Your task to perform on an android device: Find coffee shops on Maps Image 0: 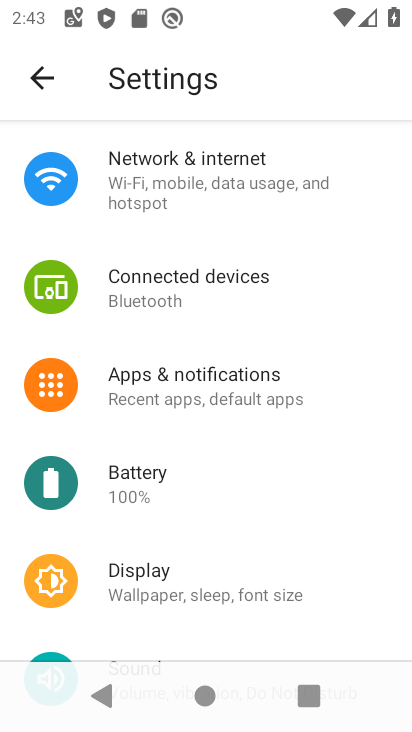
Step 0: press home button
Your task to perform on an android device: Find coffee shops on Maps Image 1: 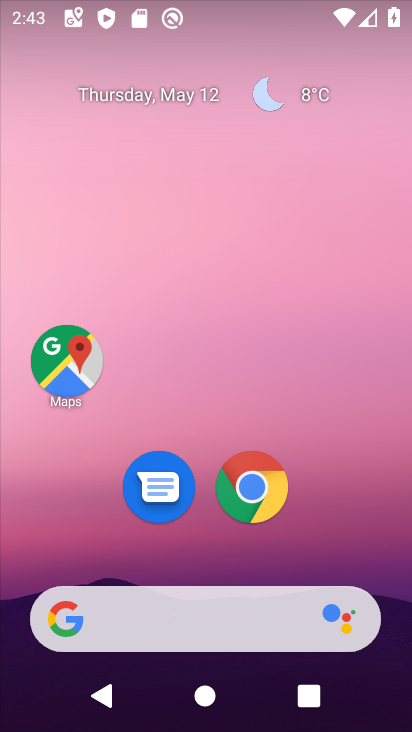
Step 1: drag from (341, 533) to (337, 496)
Your task to perform on an android device: Find coffee shops on Maps Image 2: 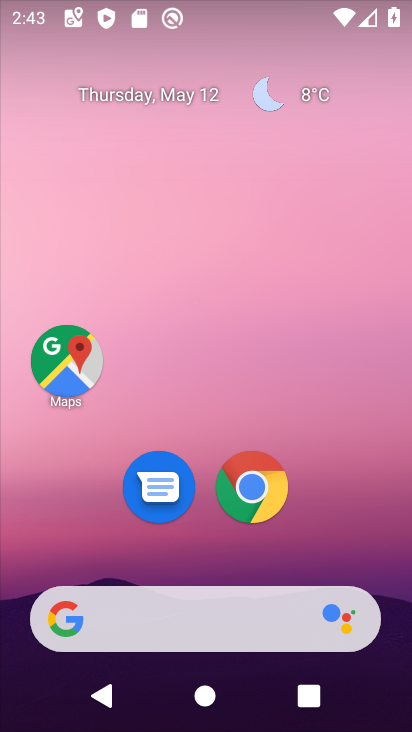
Step 2: drag from (363, 416) to (394, 5)
Your task to perform on an android device: Find coffee shops on Maps Image 3: 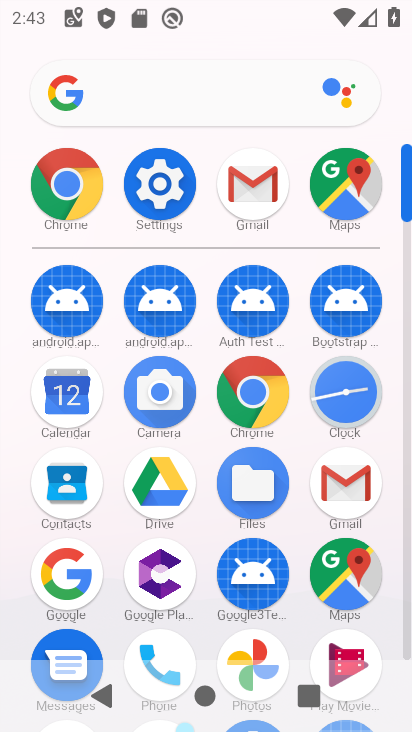
Step 3: click (356, 564)
Your task to perform on an android device: Find coffee shops on Maps Image 4: 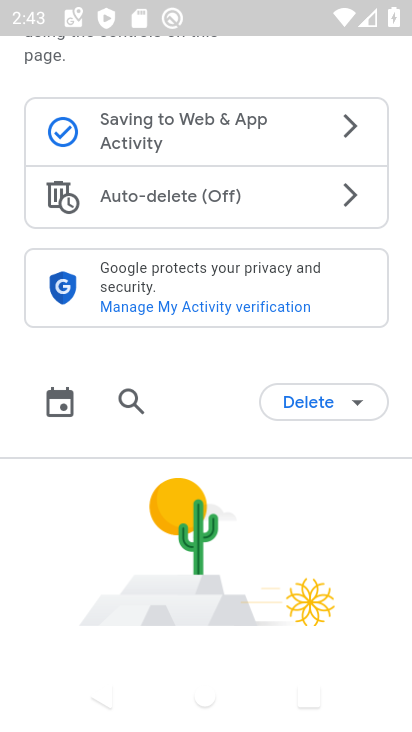
Step 4: press back button
Your task to perform on an android device: Find coffee shops on Maps Image 5: 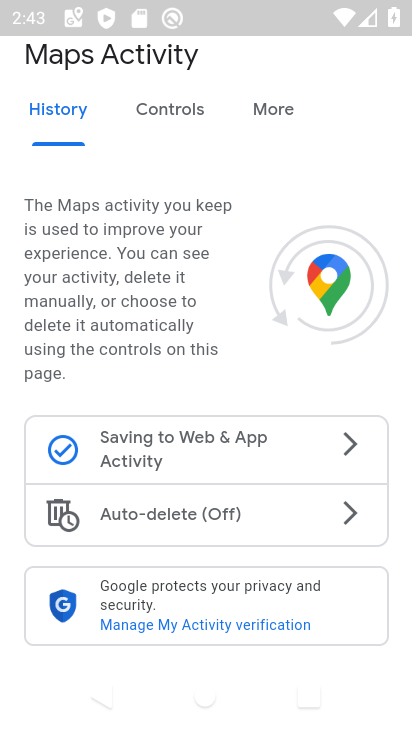
Step 5: press back button
Your task to perform on an android device: Find coffee shops on Maps Image 6: 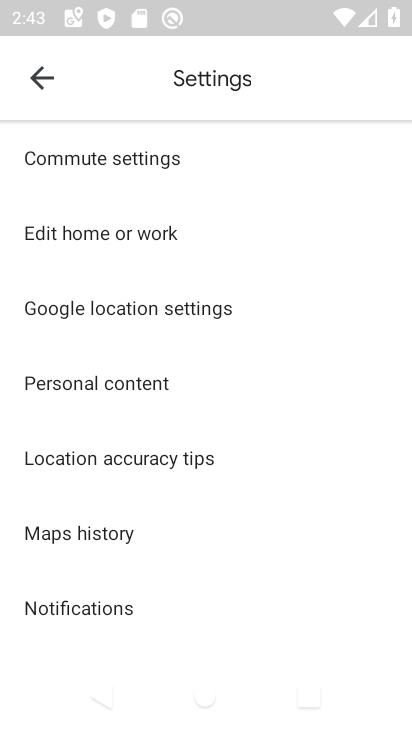
Step 6: press back button
Your task to perform on an android device: Find coffee shops on Maps Image 7: 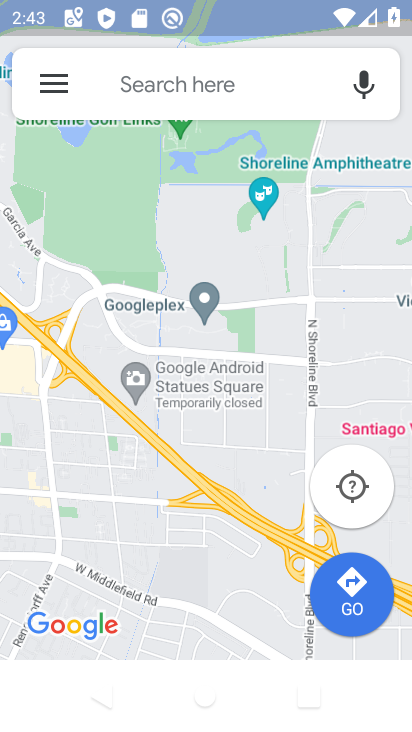
Step 7: click (137, 73)
Your task to perform on an android device: Find coffee shops on Maps Image 8: 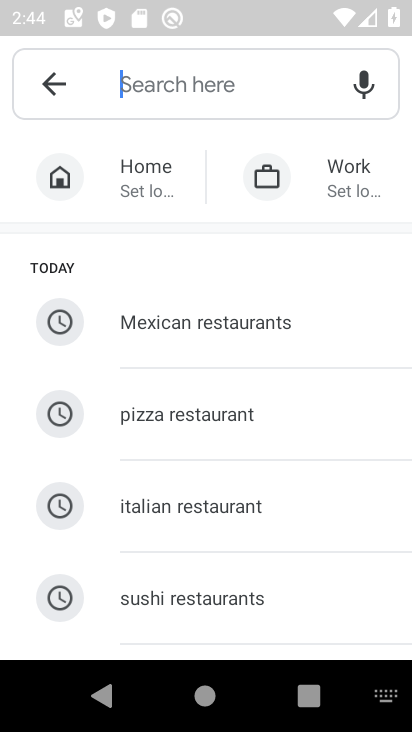
Step 8: type "coffee shops"
Your task to perform on an android device: Find coffee shops on Maps Image 9: 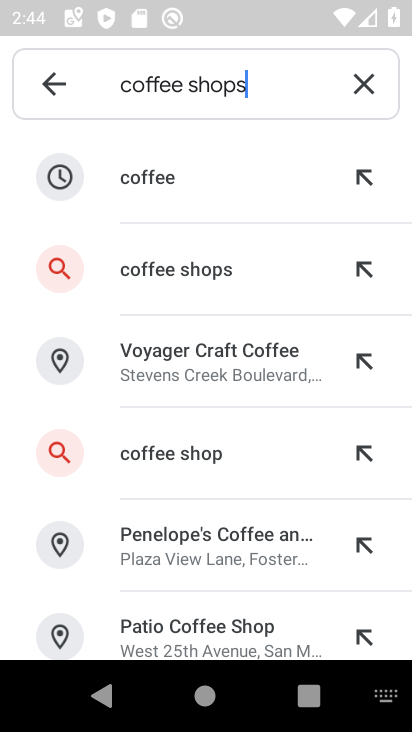
Step 9: click (153, 273)
Your task to perform on an android device: Find coffee shops on Maps Image 10: 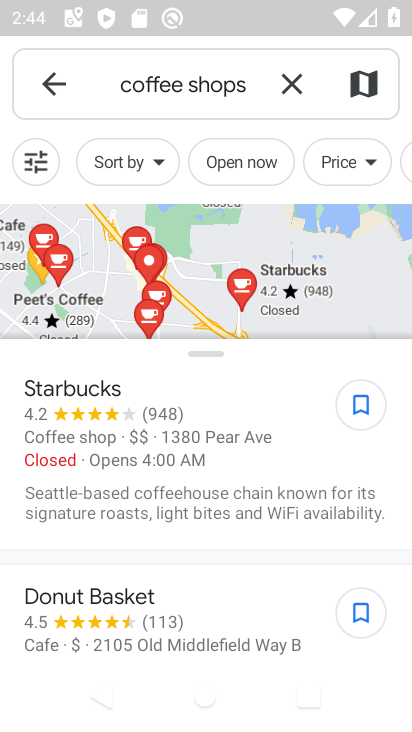
Step 10: task complete